Your task to perform on an android device: change text size in settings app Image 0: 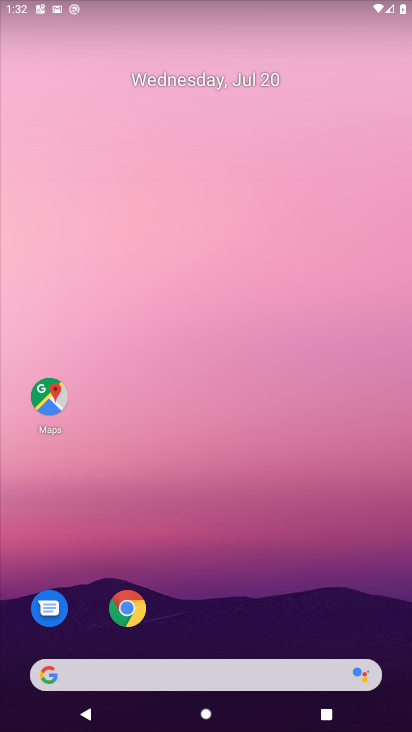
Step 0: drag from (153, 654) to (166, 252)
Your task to perform on an android device: change text size in settings app Image 1: 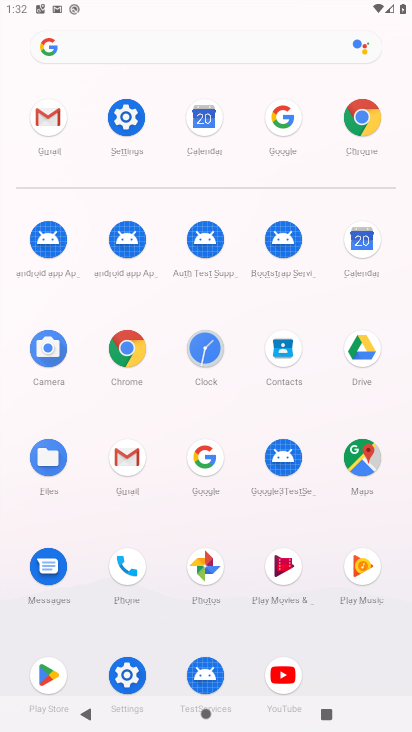
Step 1: click (132, 118)
Your task to perform on an android device: change text size in settings app Image 2: 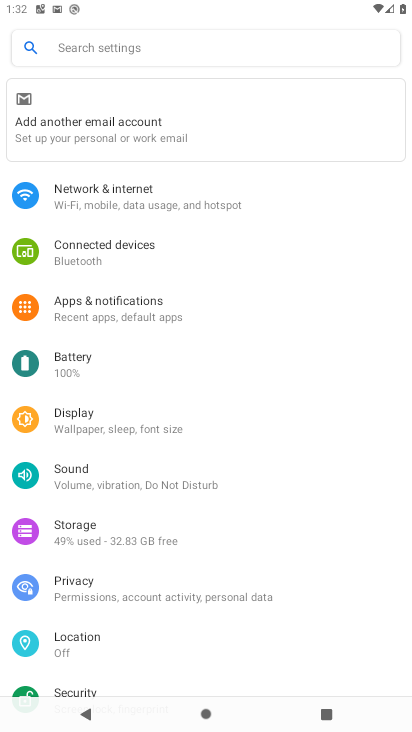
Step 2: drag from (71, 683) to (132, 282)
Your task to perform on an android device: change text size in settings app Image 3: 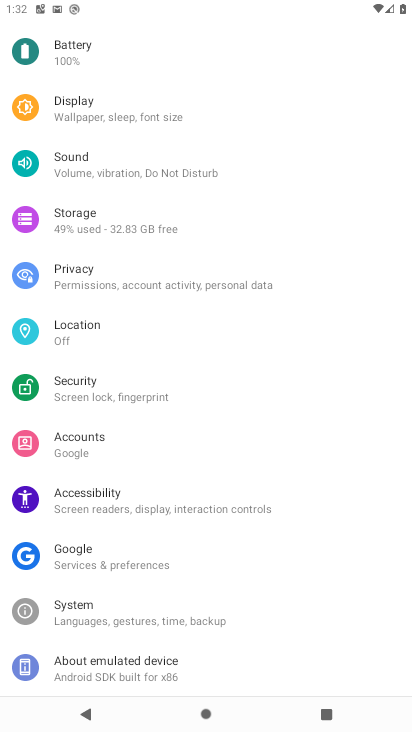
Step 3: click (76, 508)
Your task to perform on an android device: change text size in settings app Image 4: 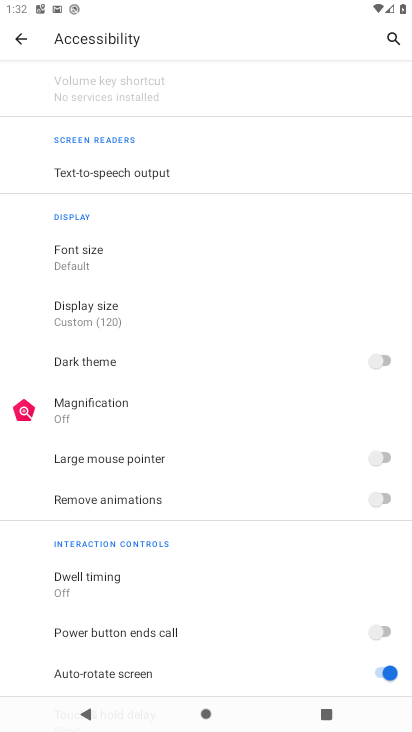
Step 4: click (90, 265)
Your task to perform on an android device: change text size in settings app Image 5: 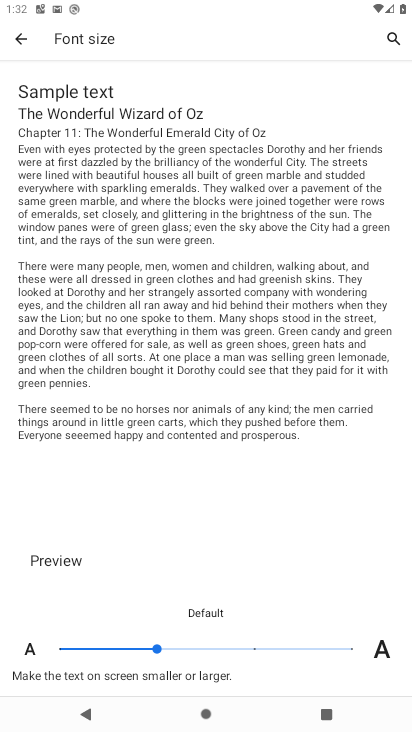
Step 5: click (232, 631)
Your task to perform on an android device: change text size in settings app Image 6: 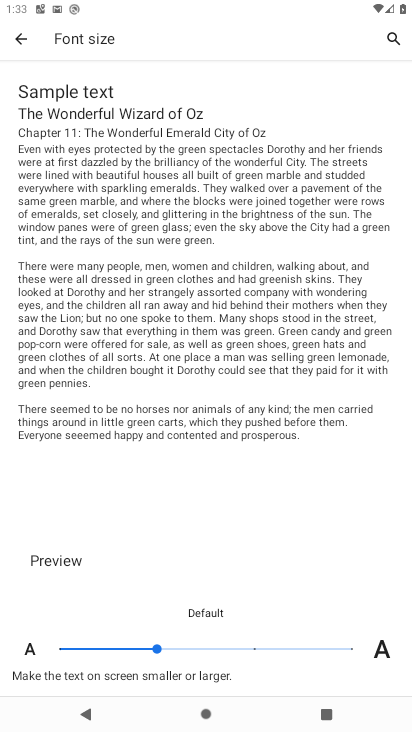
Step 6: click (192, 648)
Your task to perform on an android device: change text size in settings app Image 7: 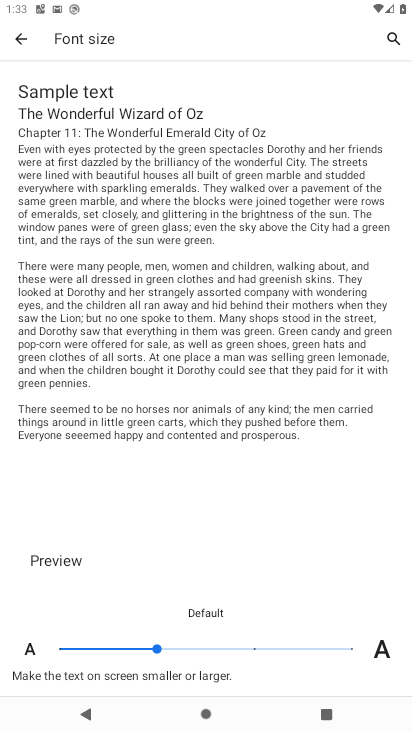
Step 7: task complete